Your task to perform on an android device: add a contact in the contacts app Image 0: 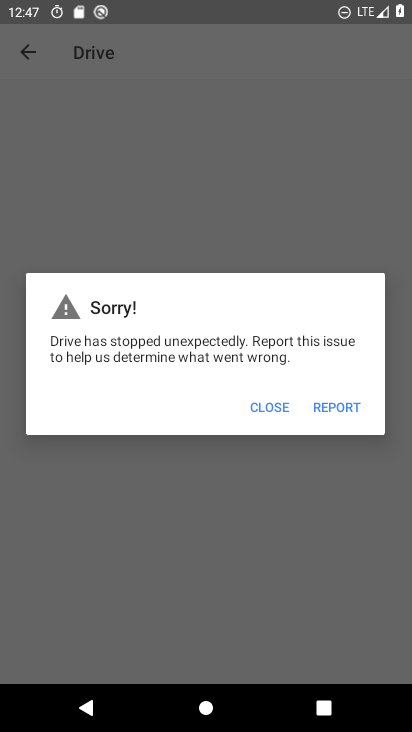
Step 0: press home button
Your task to perform on an android device: add a contact in the contacts app Image 1: 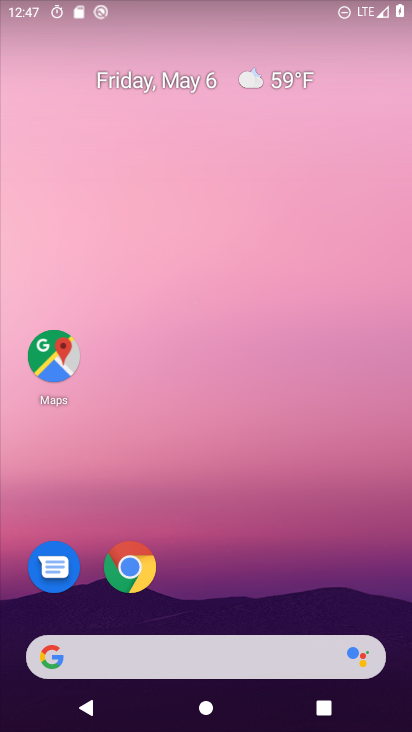
Step 1: drag from (225, 577) to (223, 23)
Your task to perform on an android device: add a contact in the contacts app Image 2: 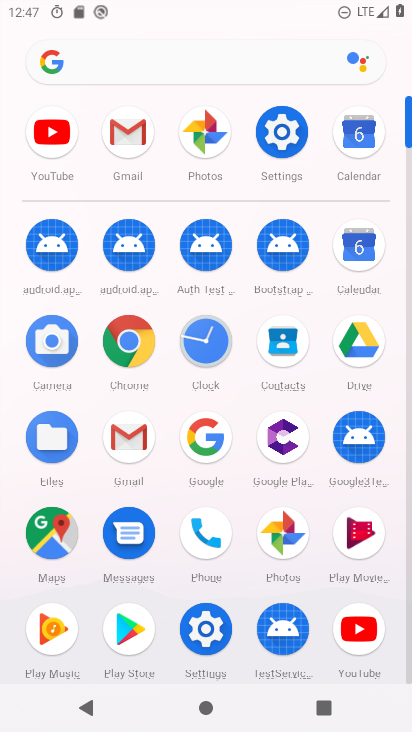
Step 2: click (288, 344)
Your task to perform on an android device: add a contact in the contacts app Image 3: 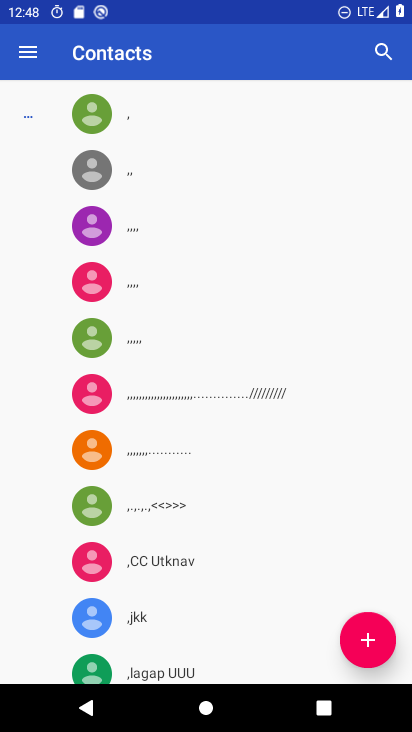
Step 3: click (378, 642)
Your task to perform on an android device: add a contact in the contacts app Image 4: 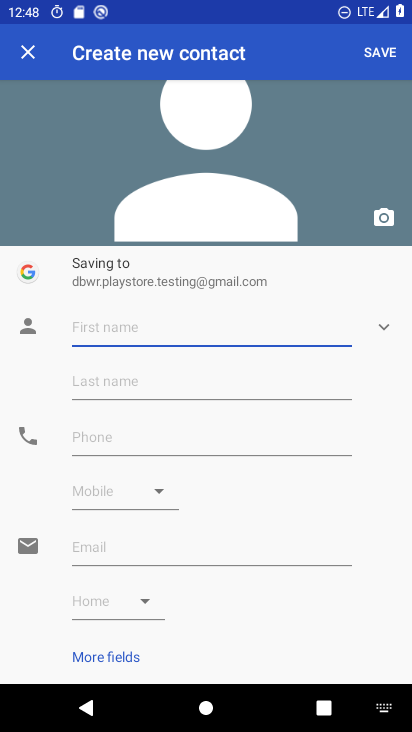
Step 4: click (106, 329)
Your task to perform on an android device: add a contact in the contacts app Image 5: 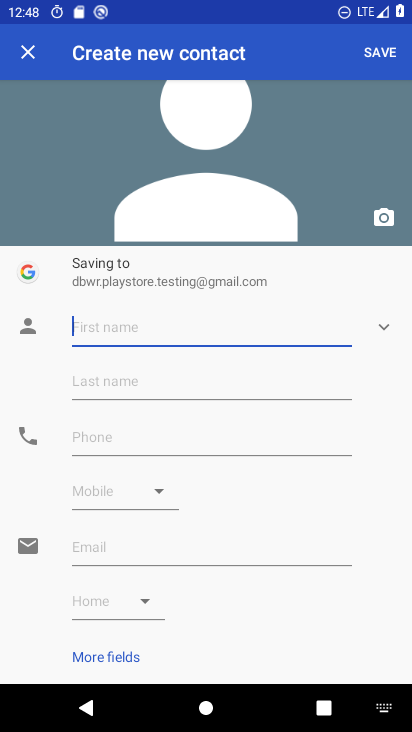
Step 5: type "mini"
Your task to perform on an android device: add a contact in the contacts app Image 6: 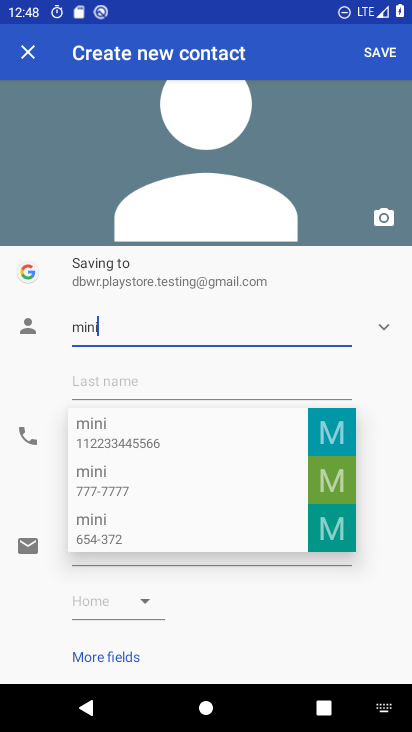
Step 6: click (379, 399)
Your task to perform on an android device: add a contact in the contacts app Image 7: 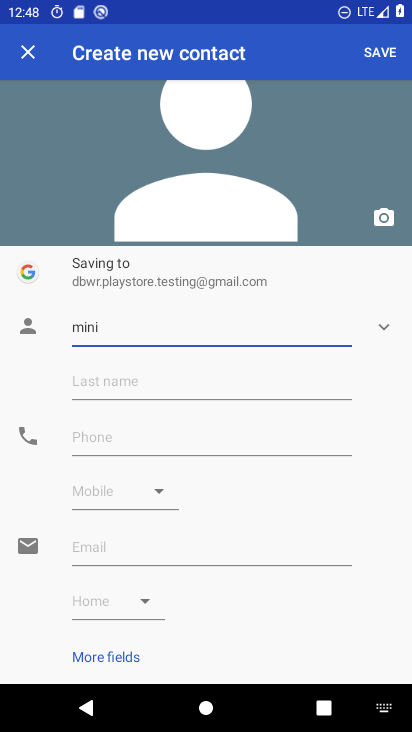
Step 7: click (109, 408)
Your task to perform on an android device: add a contact in the contacts app Image 8: 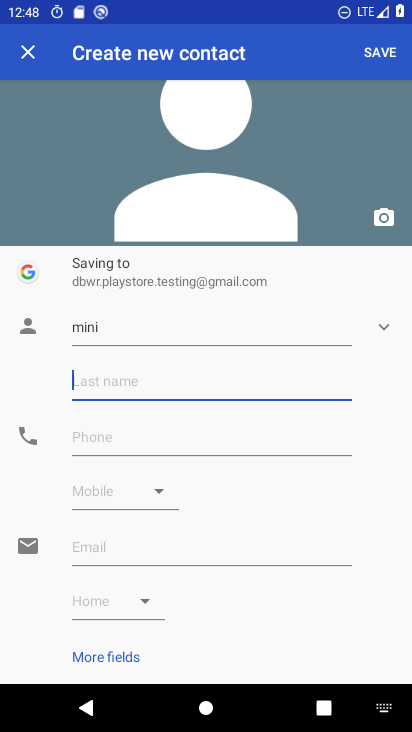
Step 8: click (90, 439)
Your task to perform on an android device: add a contact in the contacts app Image 9: 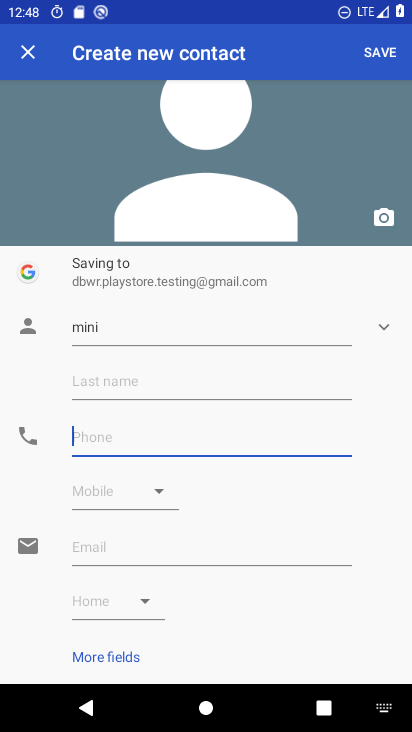
Step 9: type "654334567"
Your task to perform on an android device: add a contact in the contacts app Image 10: 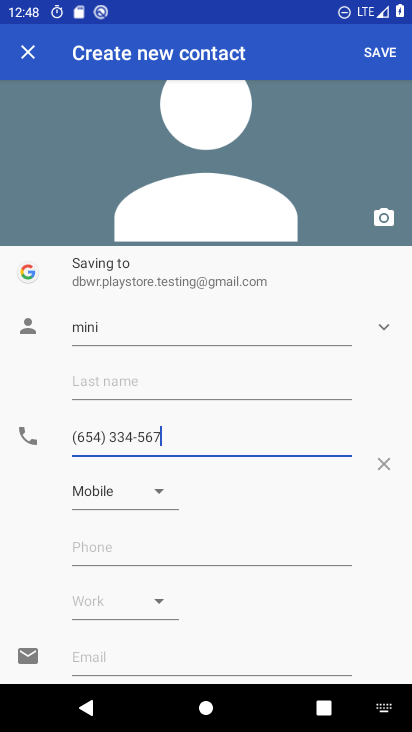
Step 10: click (382, 48)
Your task to perform on an android device: add a contact in the contacts app Image 11: 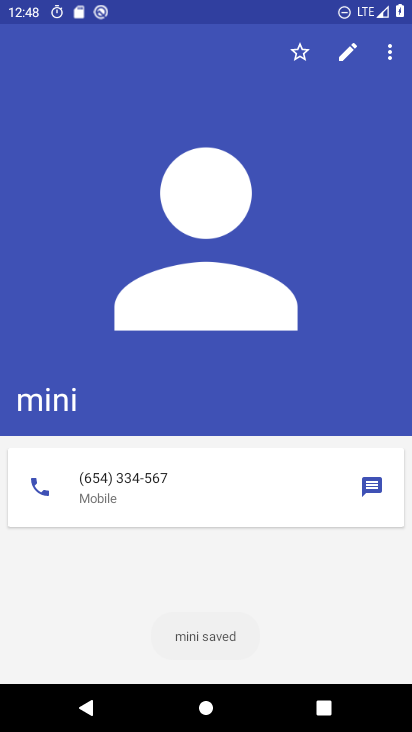
Step 11: task complete